Your task to perform on an android device: turn on javascript in the chrome app Image 0: 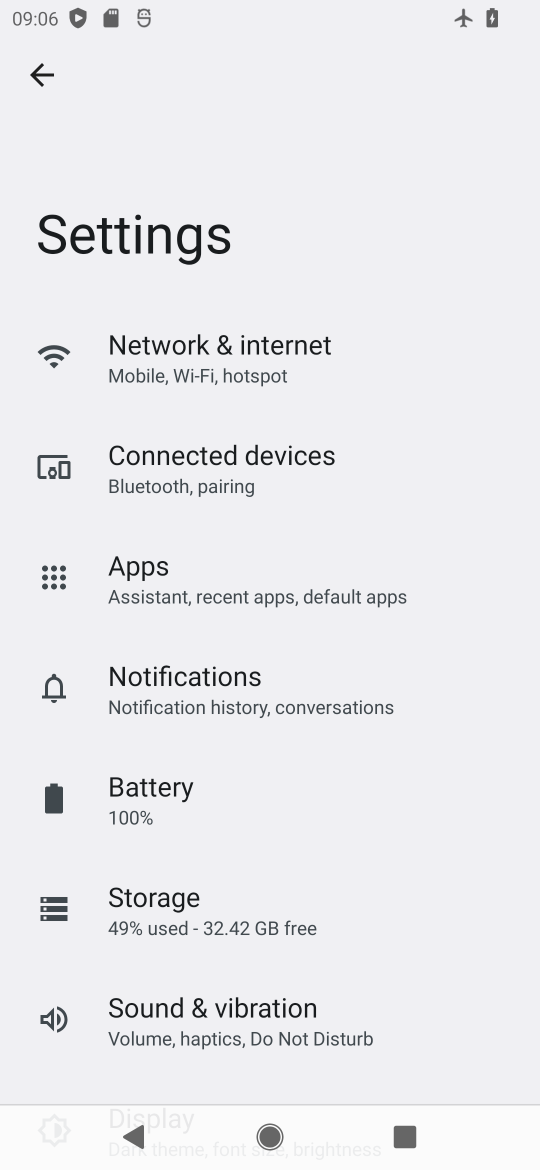
Step 0: press home button
Your task to perform on an android device: turn on javascript in the chrome app Image 1: 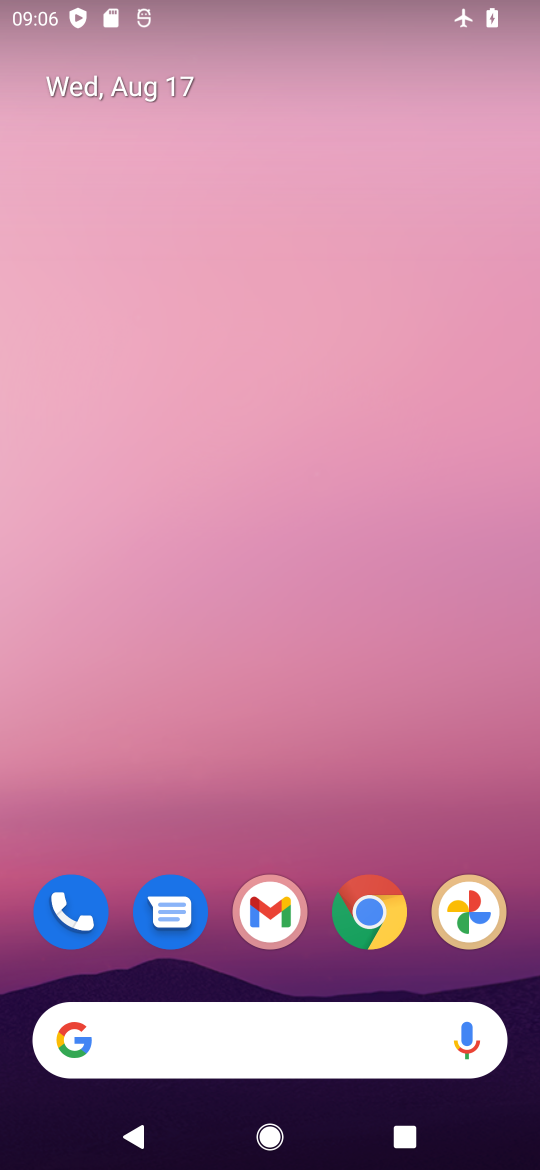
Step 1: click (387, 912)
Your task to perform on an android device: turn on javascript in the chrome app Image 2: 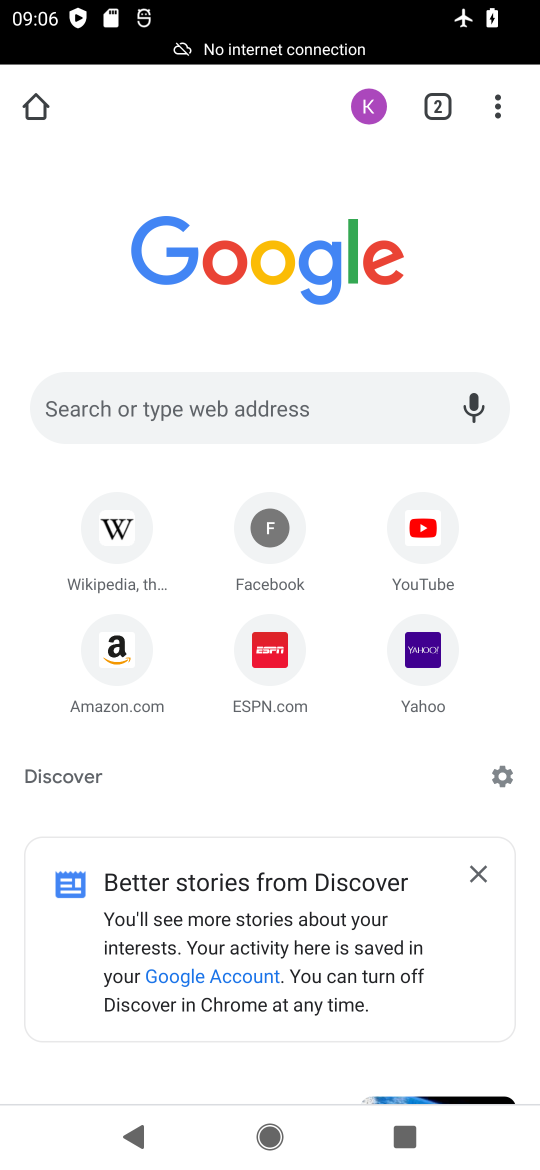
Step 2: click (499, 105)
Your task to perform on an android device: turn on javascript in the chrome app Image 3: 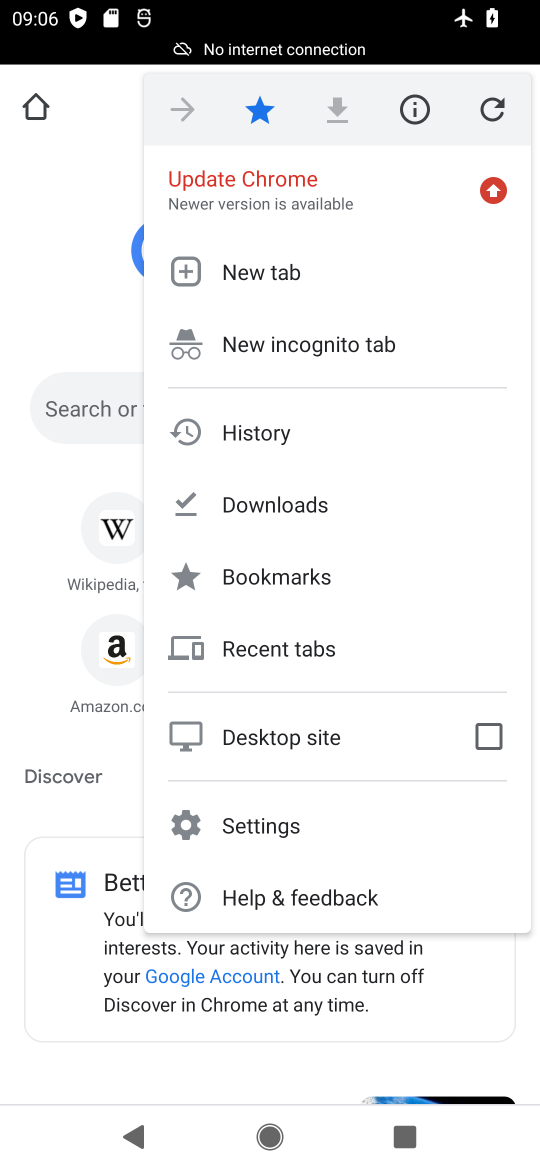
Step 3: click (267, 819)
Your task to perform on an android device: turn on javascript in the chrome app Image 4: 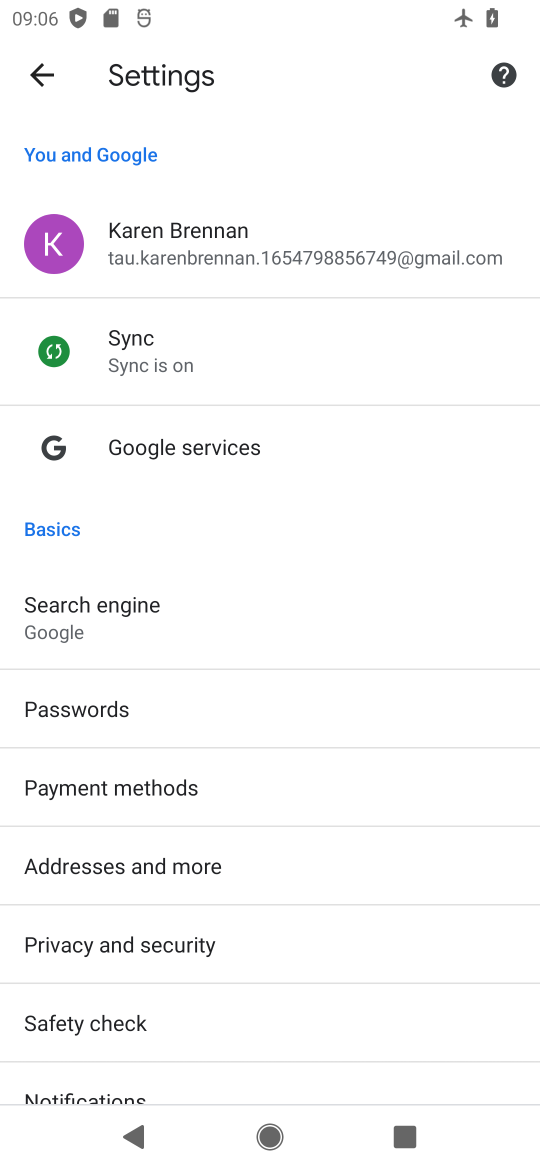
Step 4: drag from (78, 1053) to (80, 458)
Your task to perform on an android device: turn on javascript in the chrome app Image 5: 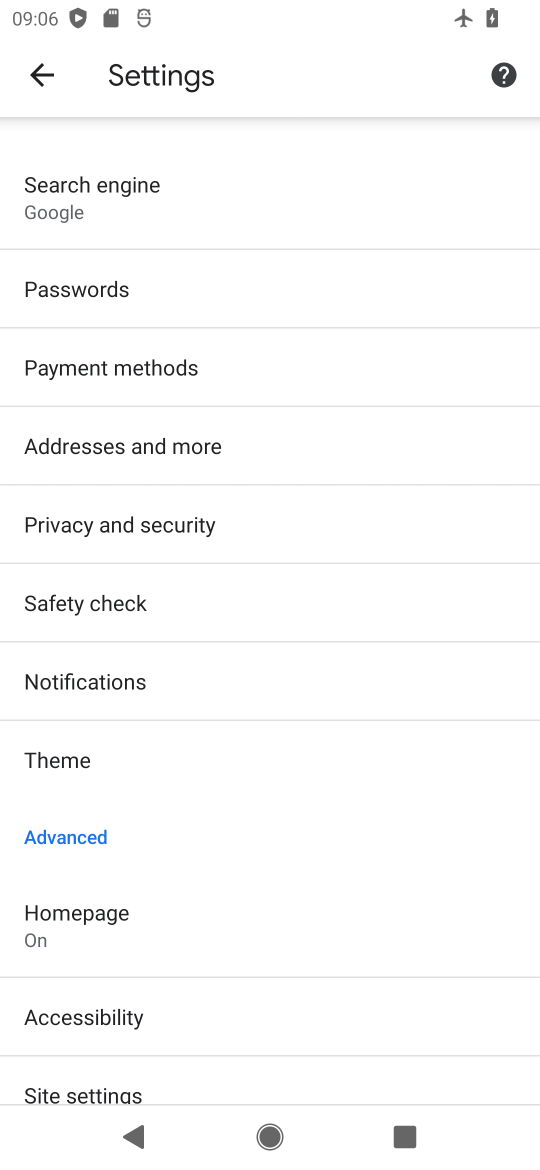
Step 5: click (35, 1092)
Your task to perform on an android device: turn on javascript in the chrome app Image 6: 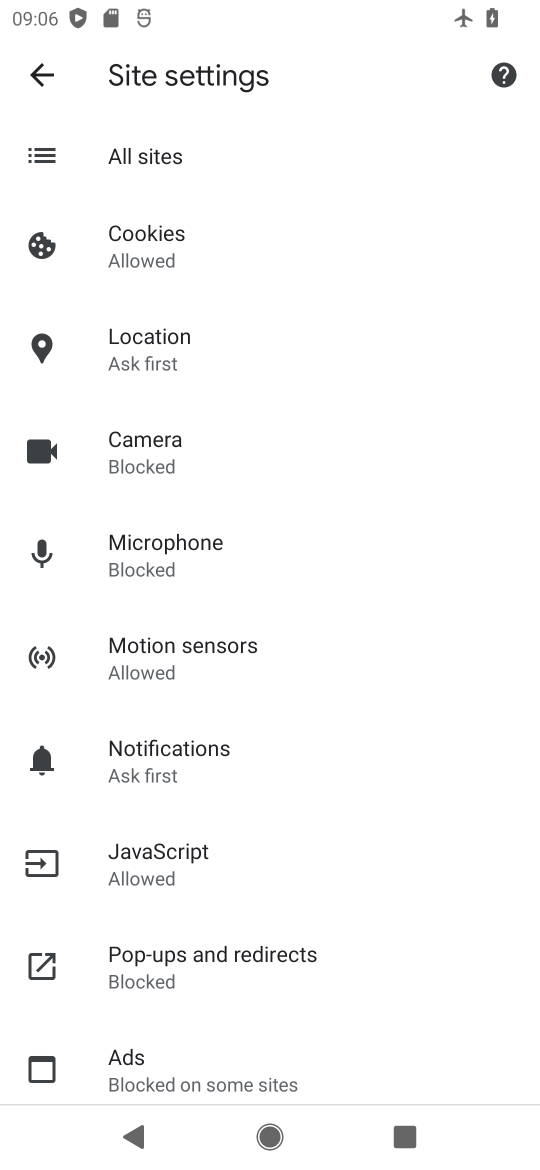
Step 6: click (140, 862)
Your task to perform on an android device: turn on javascript in the chrome app Image 7: 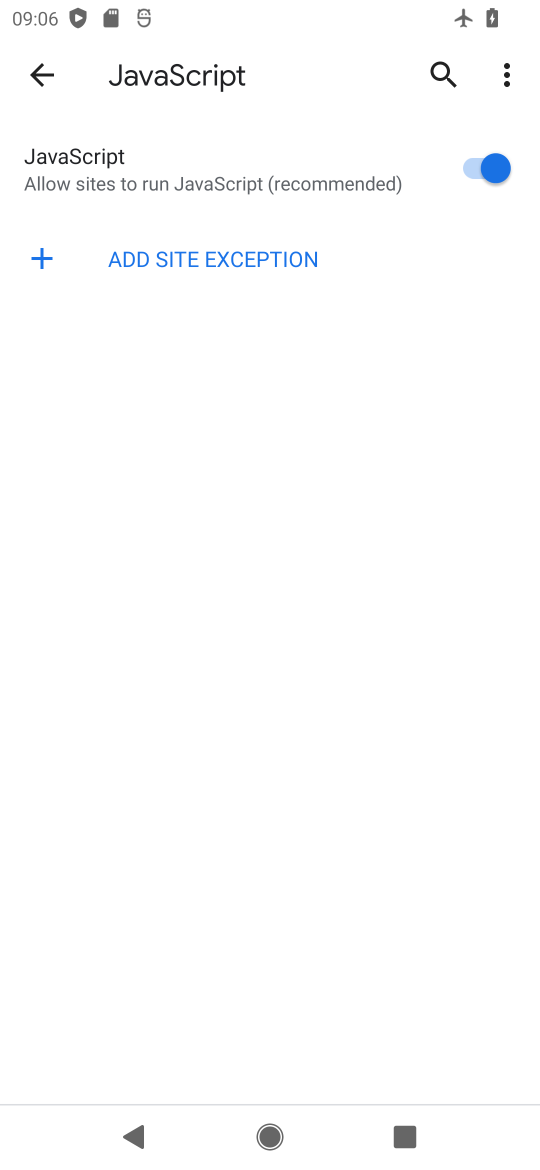
Step 7: task complete